Your task to perform on an android device: set default search engine in the chrome app Image 0: 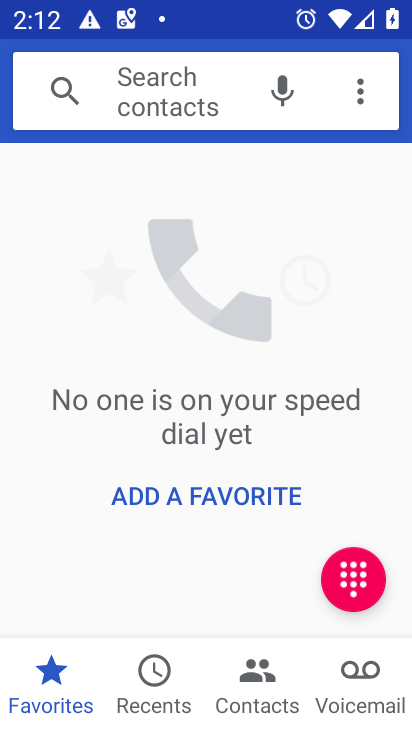
Step 0: press home button
Your task to perform on an android device: set default search engine in the chrome app Image 1: 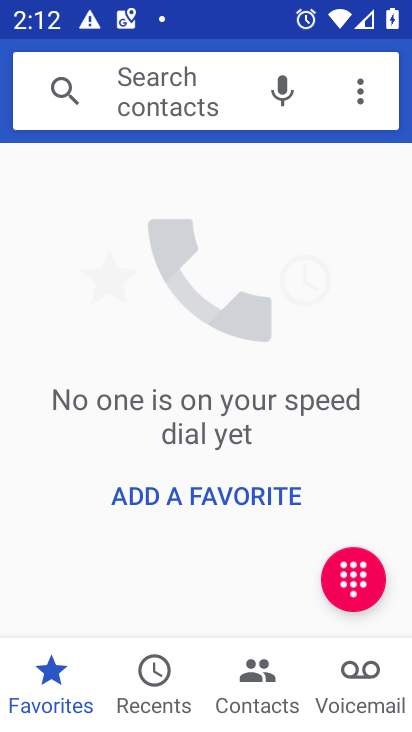
Step 1: press home button
Your task to perform on an android device: set default search engine in the chrome app Image 2: 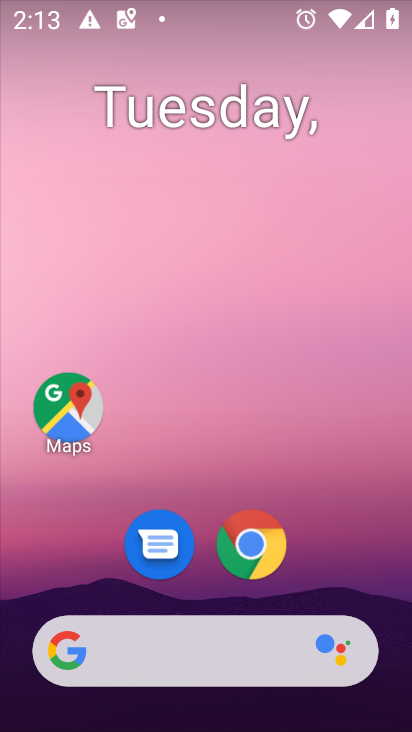
Step 2: click (252, 546)
Your task to perform on an android device: set default search engine in the chrome app Image 3: 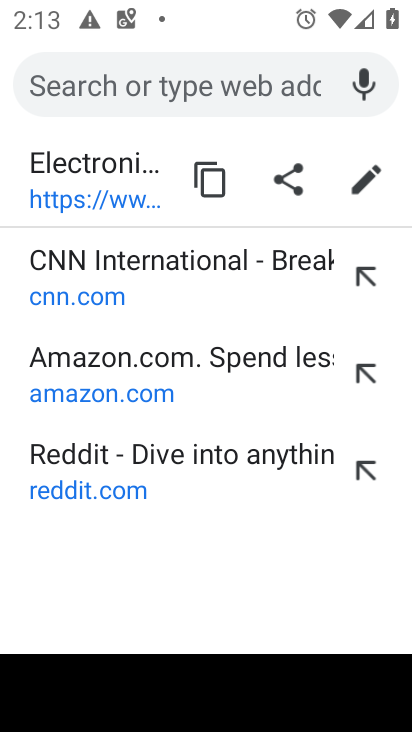
Step 3: press back button
Your task to perform on an android device: set default search engine in the chrome app Image 4: 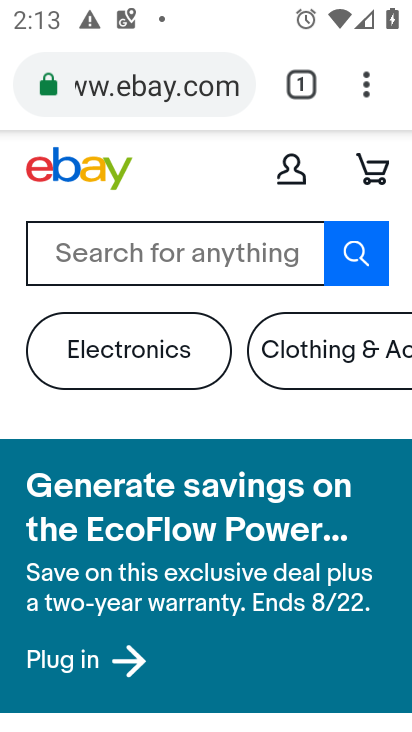
Step 4: drag from (370, 86) to (96, 615)
Your task to perform on an android device: set default search engine in the chrome app Image 5: 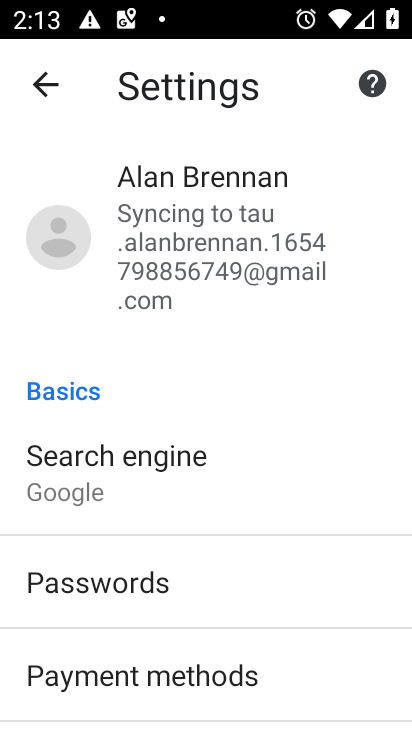
Step 5: click (184, 485)
Your task to perform on an android device: set default search engine in the chrome app Image 6: 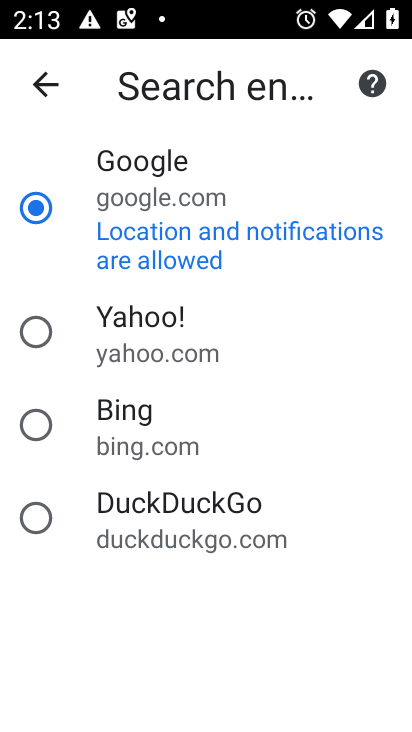
Step 6: task complete